Your task to perform on an android device: turn off improve location accuracy Image 0: 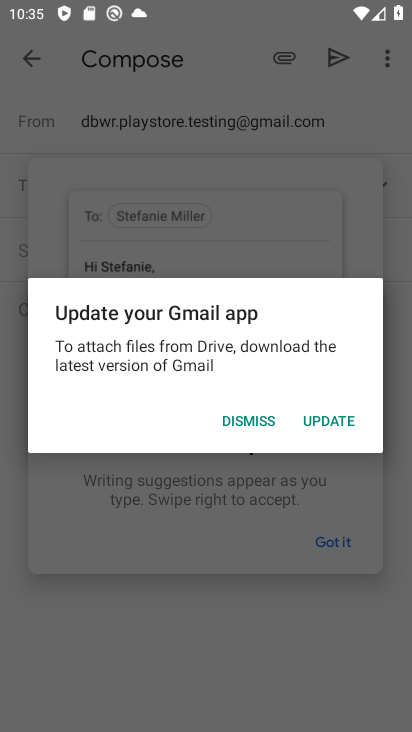
Step 0: press home button
Your task to perform on an android device: turn off improve location accuracy Image 1: 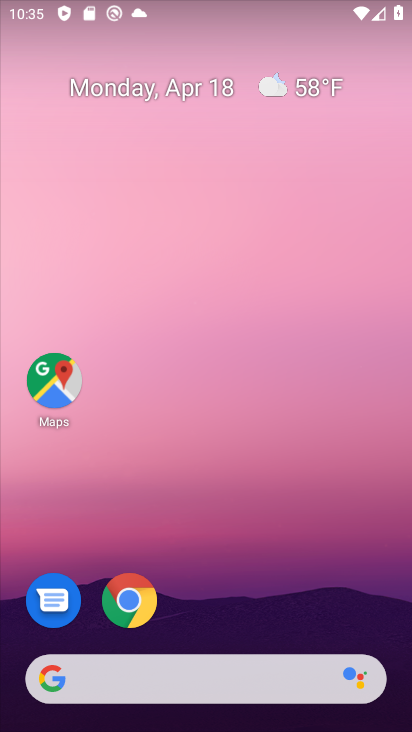
Step 1: drag from (216, 533) to (231, 4)
Your task to perform on an android device: turn off improve location accuracy Image 2: 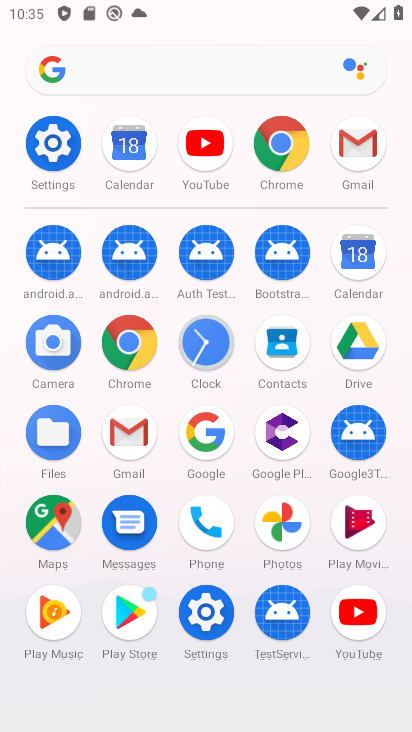
Step 2: click (51, 143)
Your task to perform on an android device: turn off improve location accuracy Image 3: 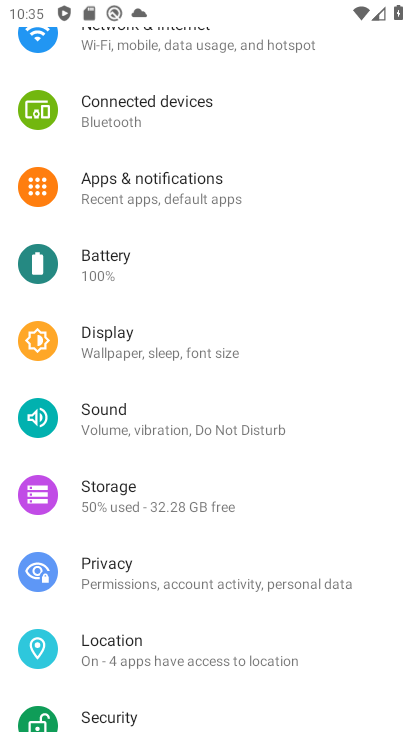
Step 3: click (106, 637)
Your task to perform on an android device: turn off improve location accuracy Image 4: 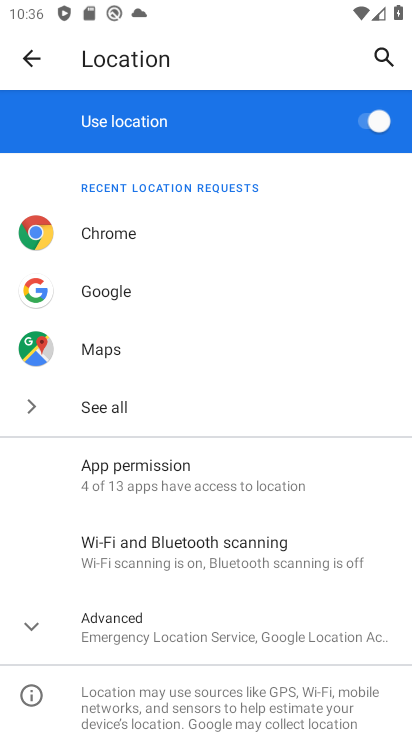
Step 4: click (88, 621)
Your task to perform on an android device: turn off improve location accuracy Image 5: 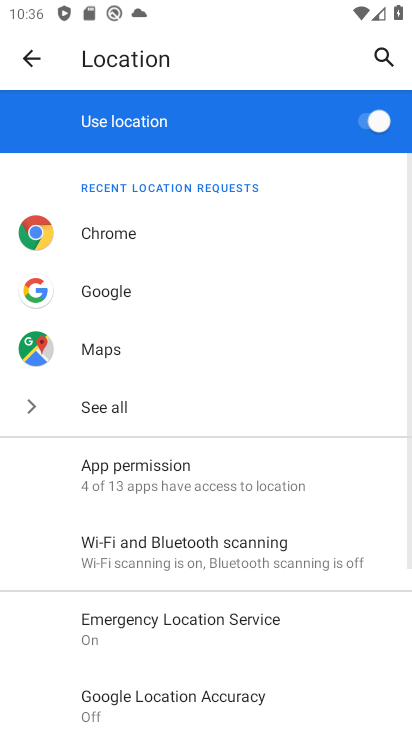
Step 5: drag from (118, 669) to (102, 235)
Your task to perform on an android device: turn off improve location accuracy Image 6: 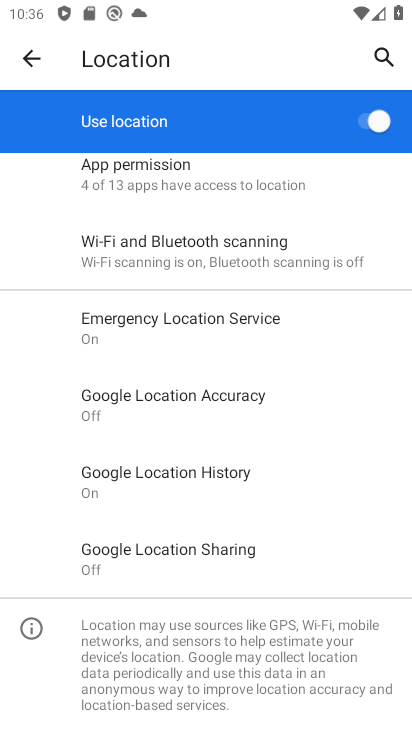
Step 6: click (133, 392)
Your task to perform on an android device: turn off improve location accuracy Image 7: 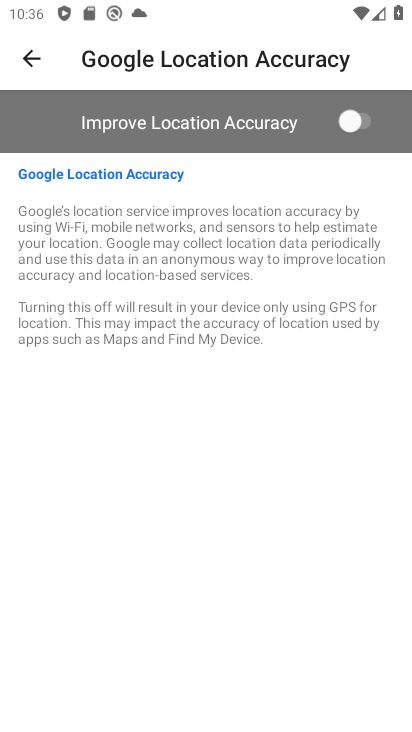
Step 7: task complete